Your task to perform on an android device: remove spam from my inbox in the gmail app Image 0: 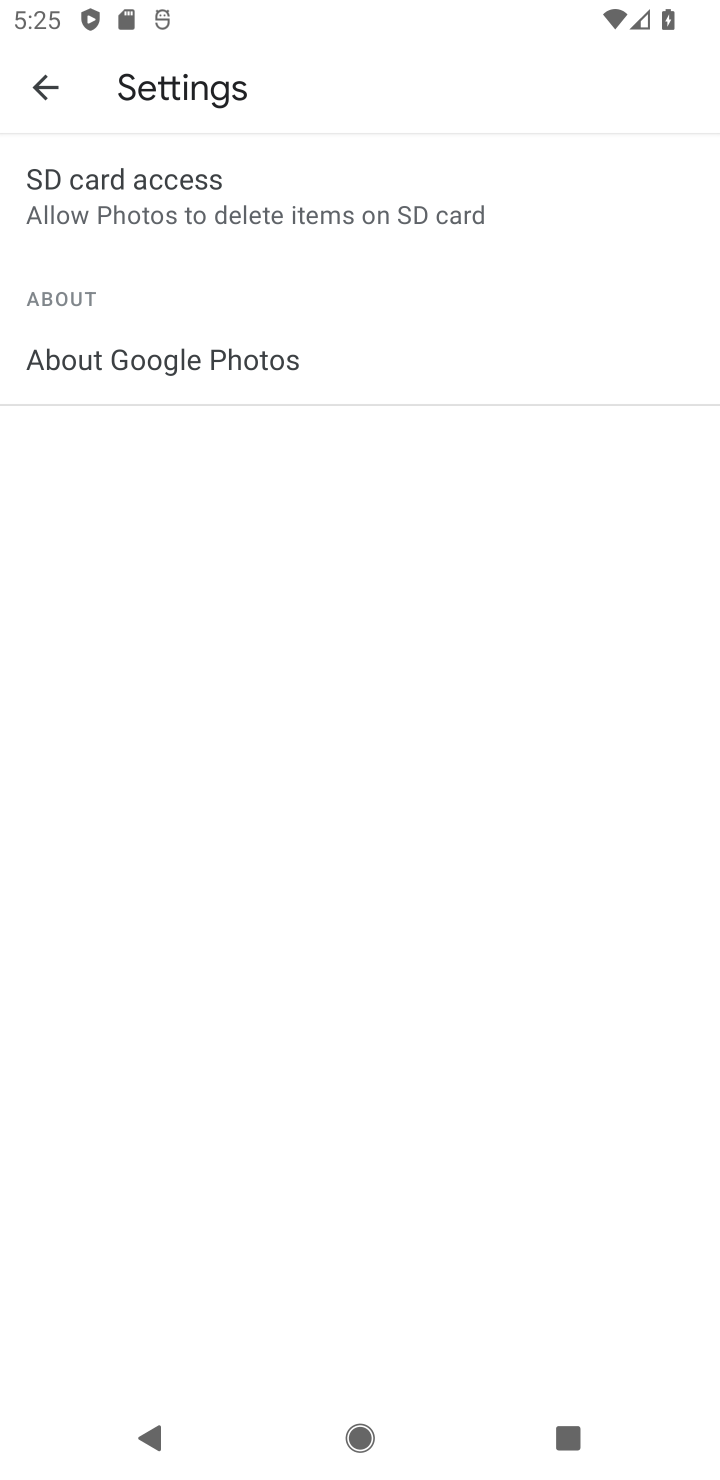
Step 0: press home button
Your task to perform on an android device: remove spam from my inbox in the gmail app Image 1: 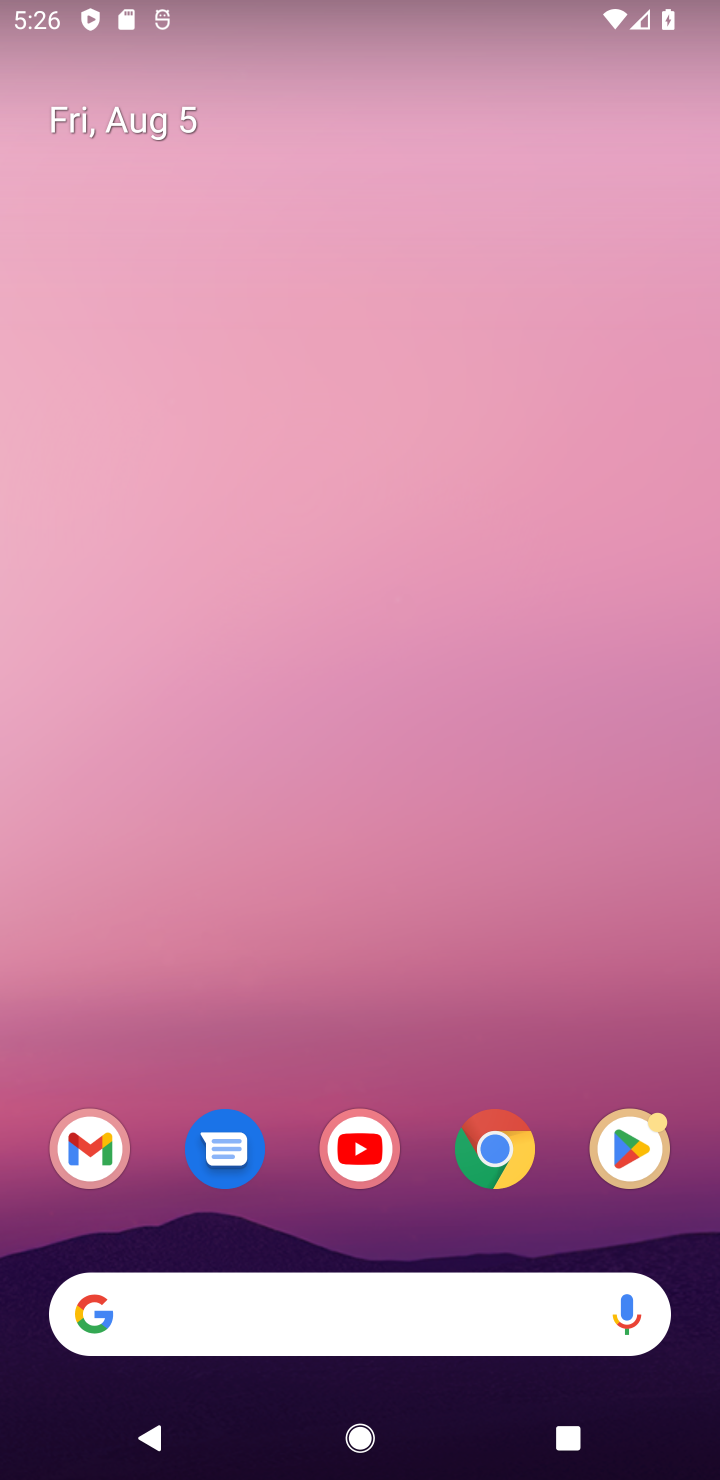
Step 1: click (106, 1153)
Your task to perform on an android device: remove spam from my inbox in the gmail app Image 2: 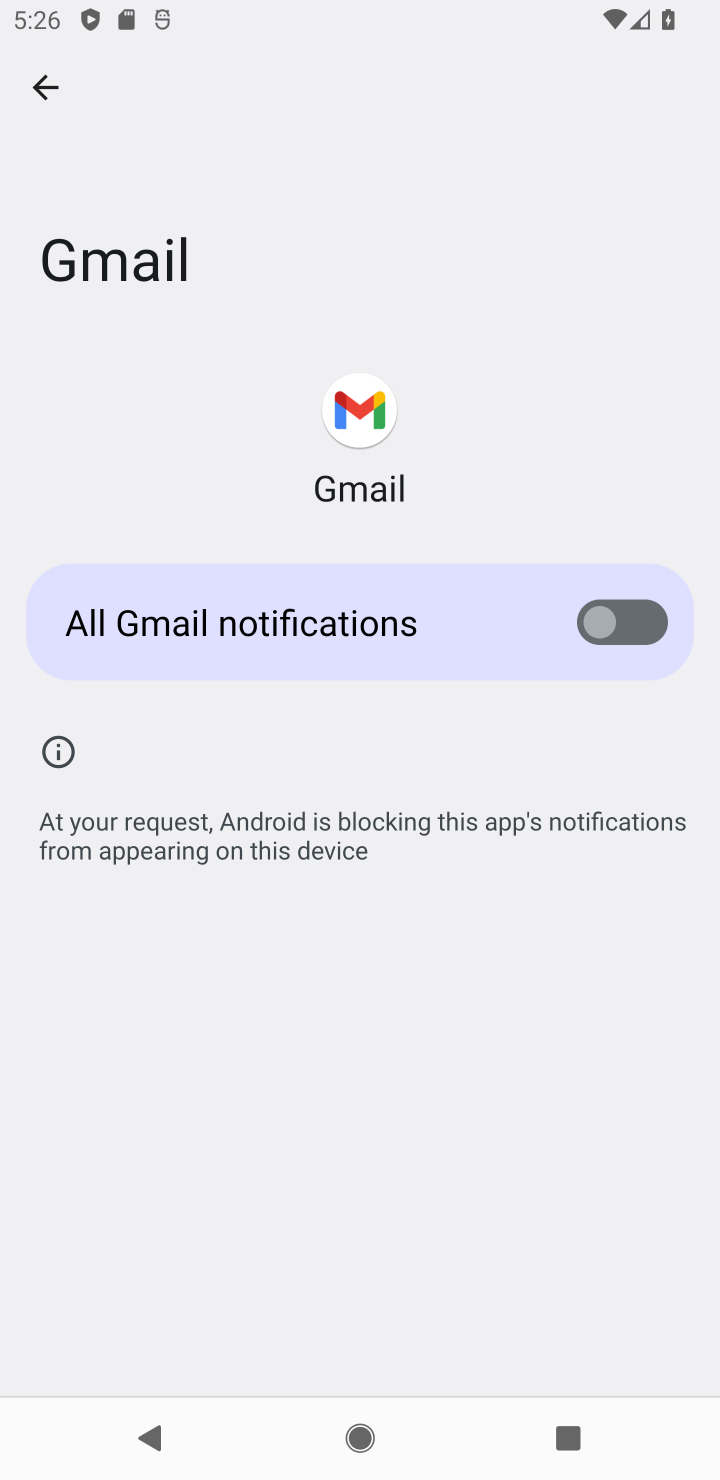
Step 2: click (47, 81)
Your task to perform on an android device: remove spam from my inbox in the gmail app Image 3: 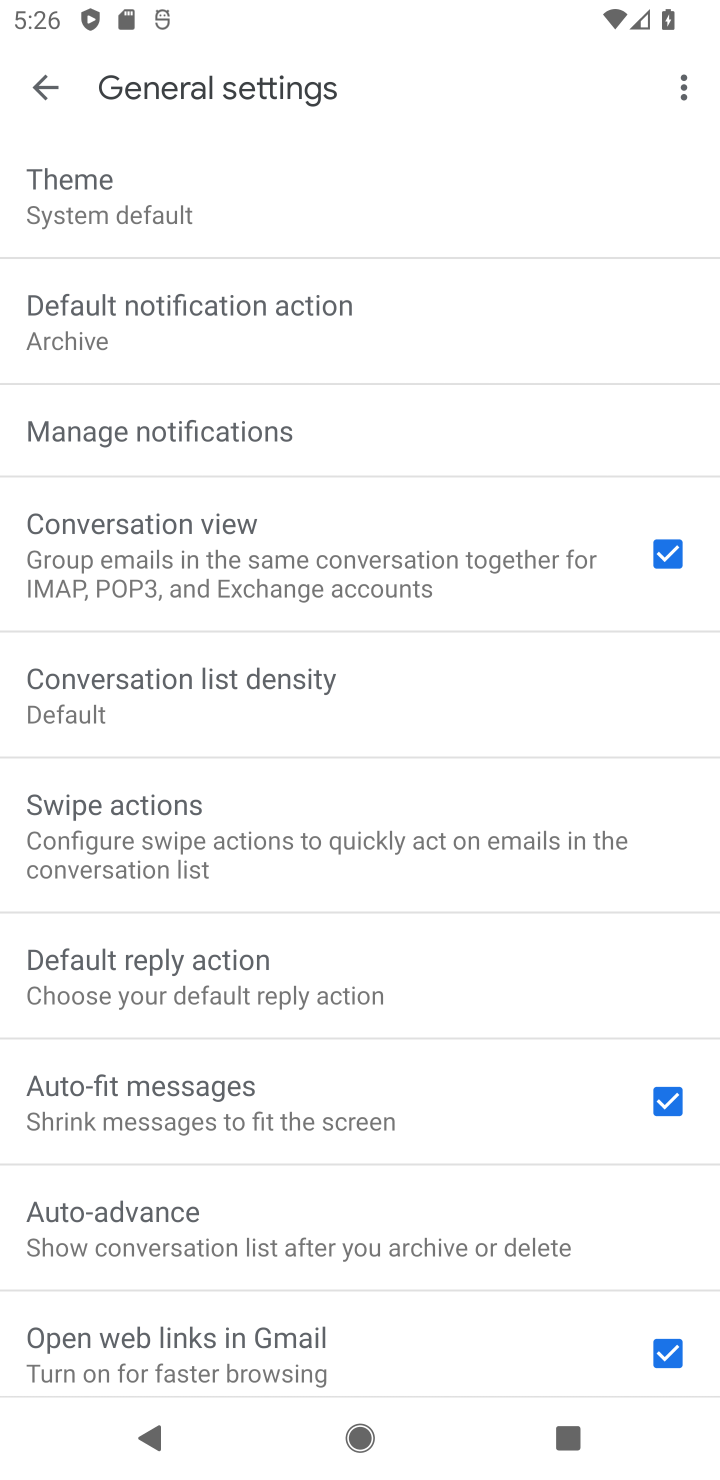
Step 3: click (47, 81)
Your task to perform on an android device: remove spam from my inbox in the gmail app Image 4: 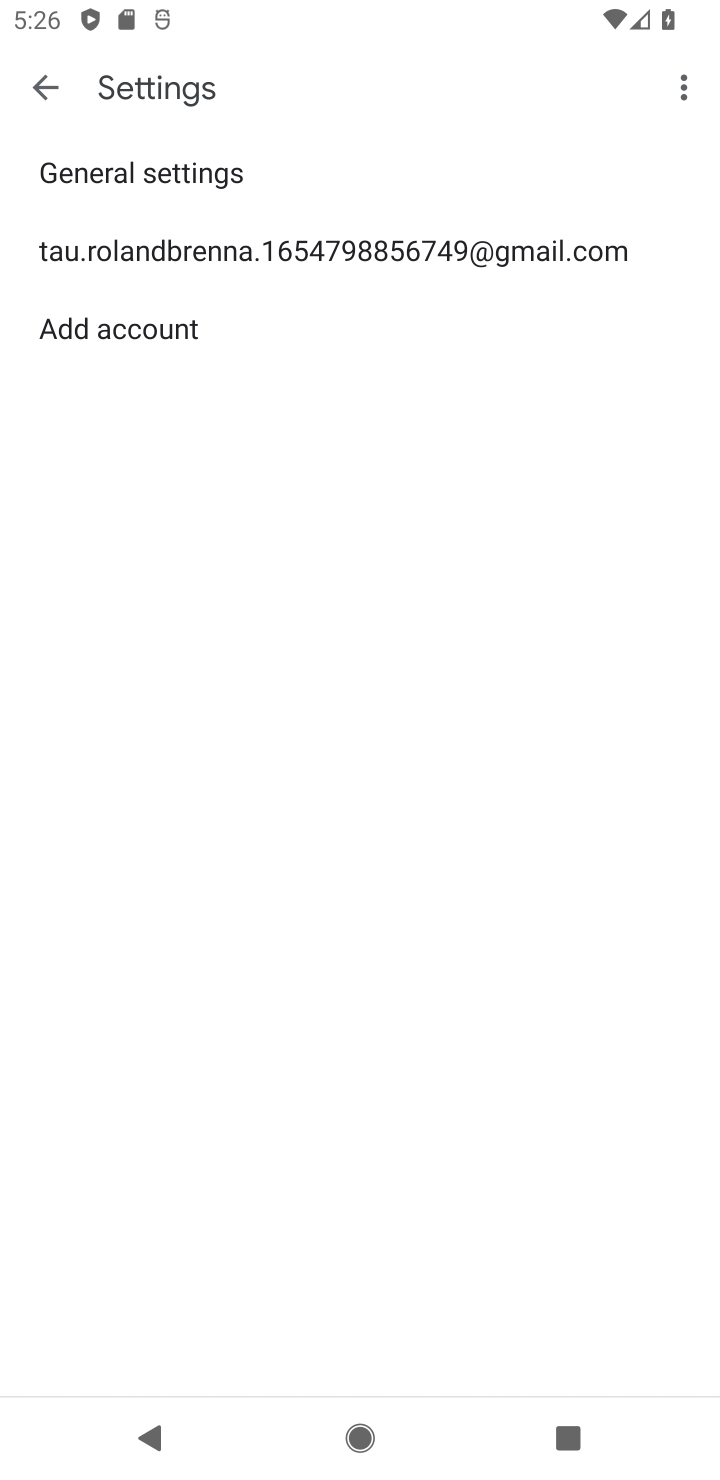
Step 4: click (47, 81)
Your task to perform on an android device: remove spam from my inbox in the gmail app Image 5: 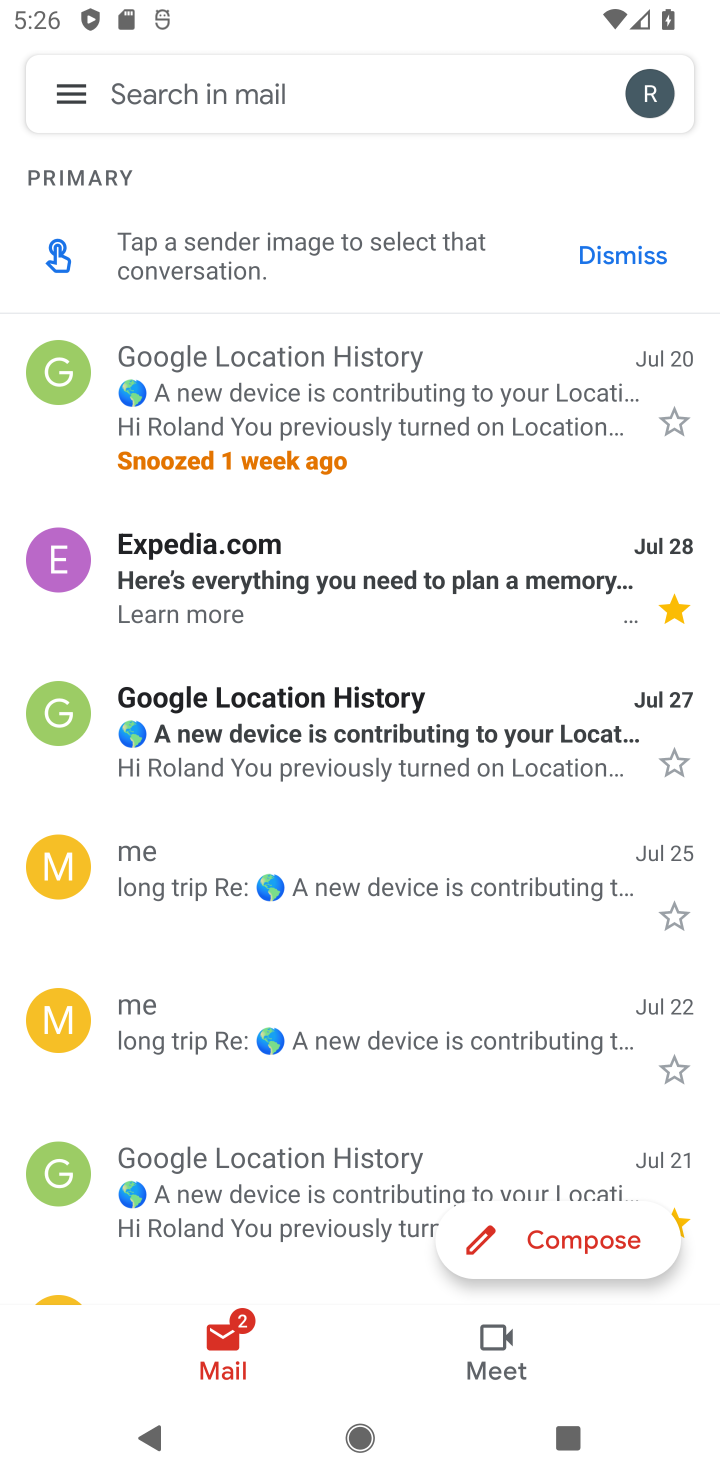
Step 5: click (47, 81)
Your task to perform on an android device: remove spam from my inbox in the gmail app Image 6: 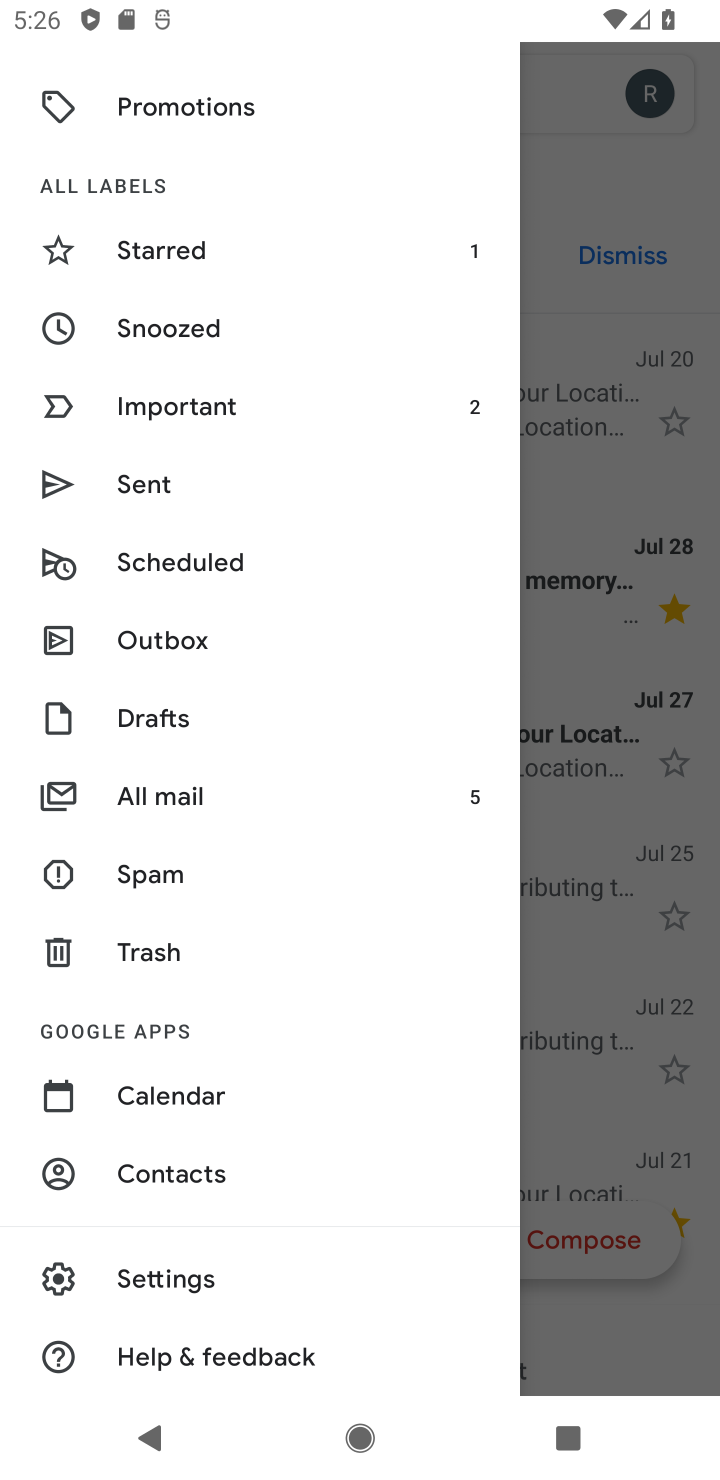
Step 6: click (166, 879)
Your task to perform on an android device: remove spam from my inbox in the gmail app Image 7: 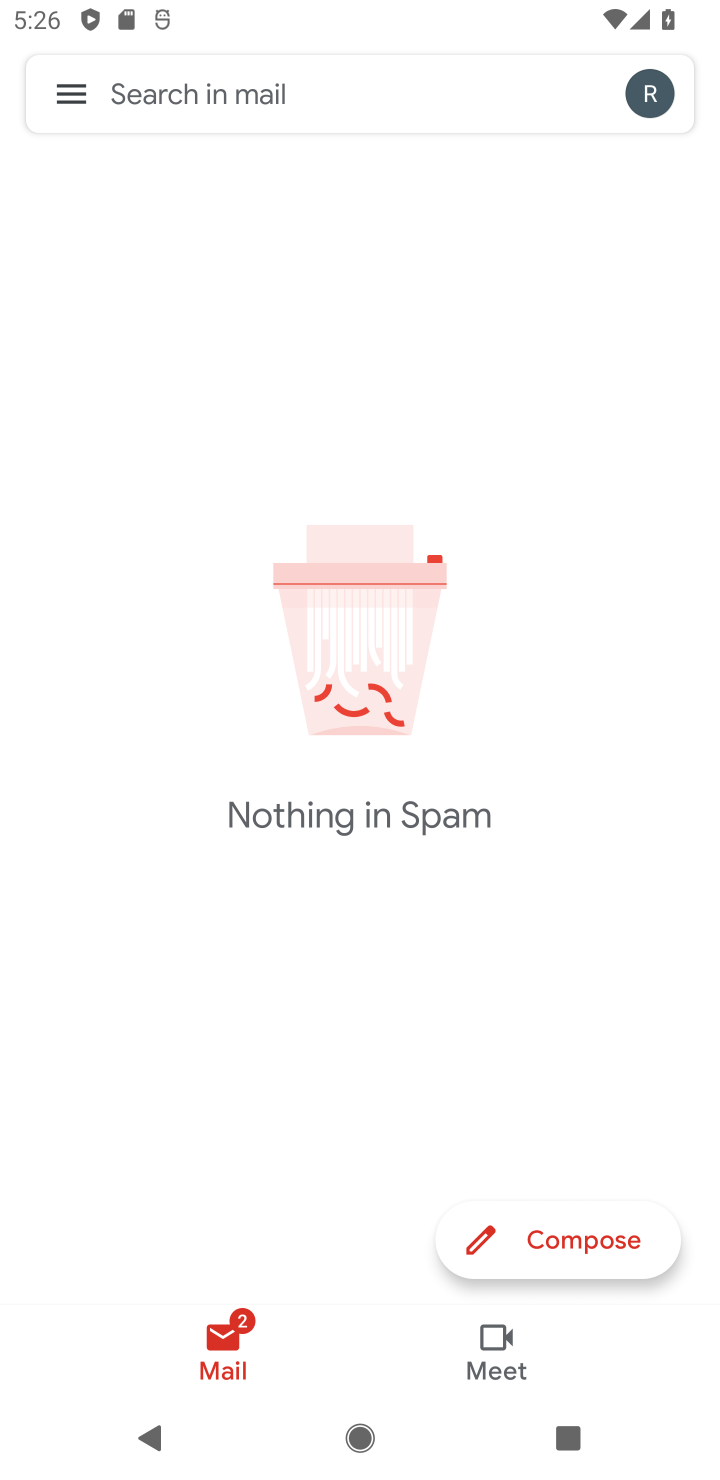
Step 7: task complete